Your task to perform on an android device: change notifications settings Image 0: 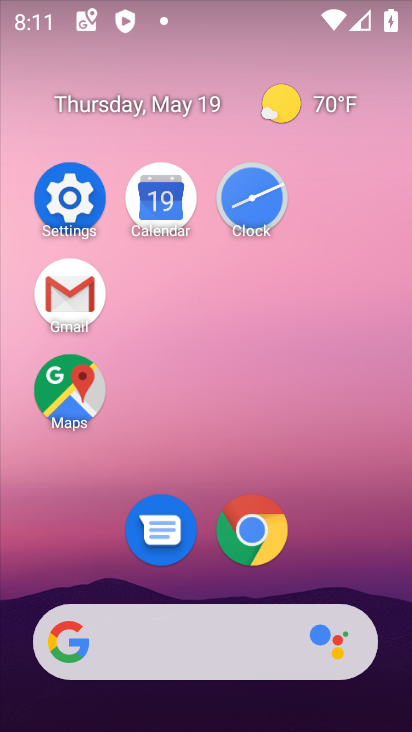
Step 0: click (76, 179)
Your task to perform on an android device: change notifications settings Image 1: 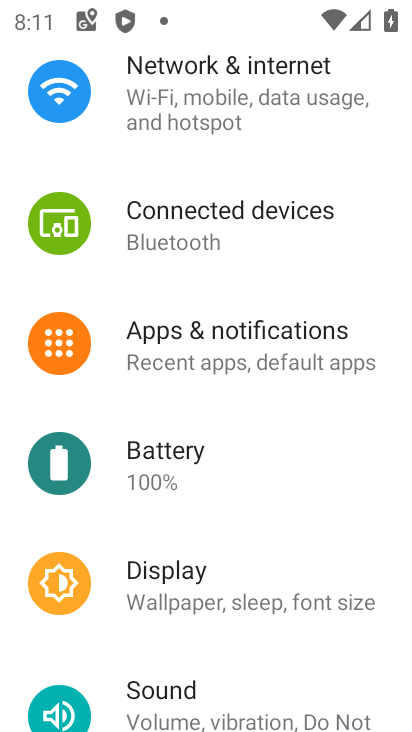
Step 1: click (257, 350)
Your task to perform on an android device: change notifications settings Image 2: 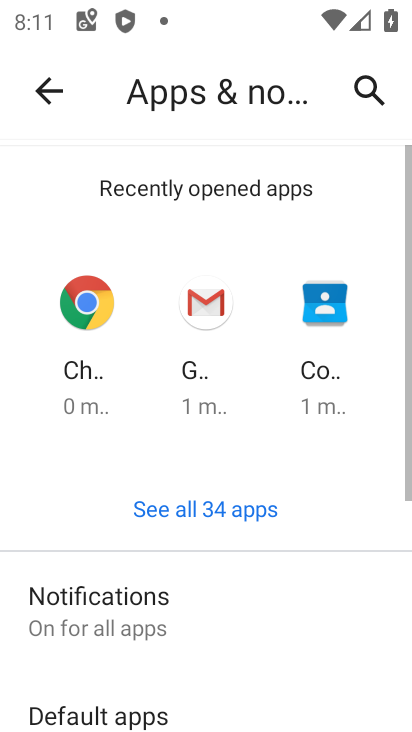
Step 2: task complete